Your task to perform on an android device: Open ESPN.com Image 0: 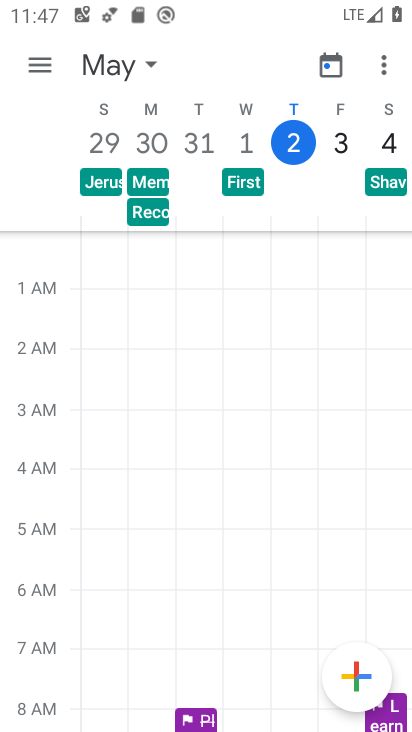
Step 0: press home button
Your task to perform on an android device: Open ESPN.com Image 1: 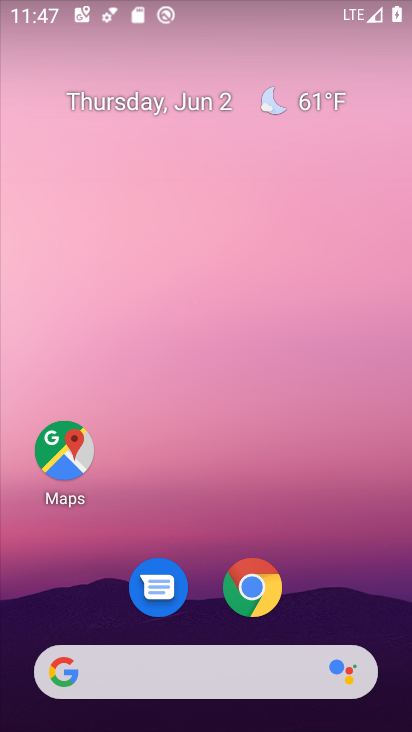
Step 1: click (196, 657)
Your task to perform on an android device: Open ESPN.com Image 2: 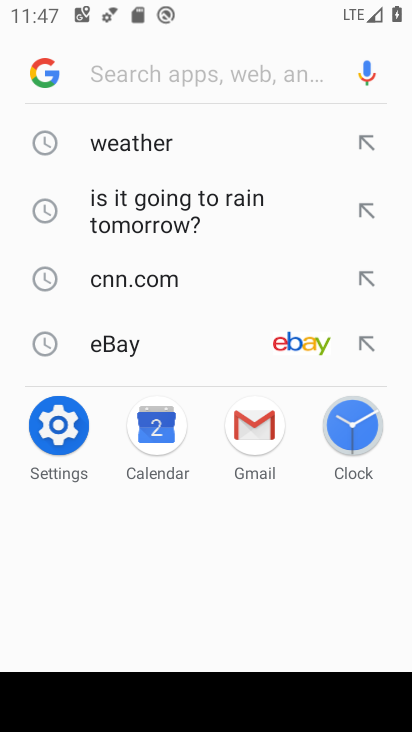
Step 2: type "espn.com"
Your task to perform on an android device: Open ESPN.com Image 3: 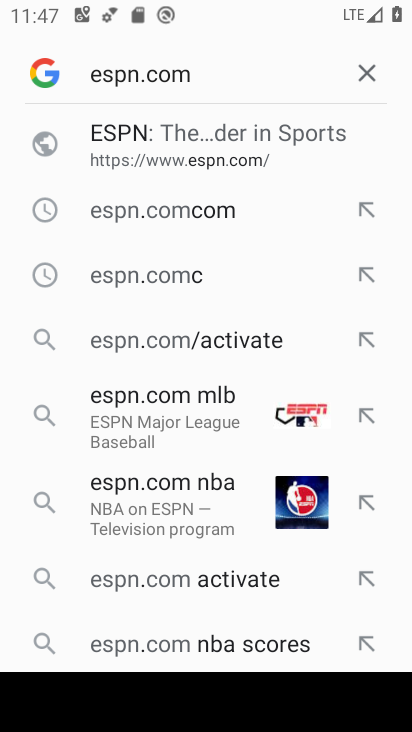
Step 3: click (94, 130)
Your task to perform on an android device: Open ESPN.com Image 4: 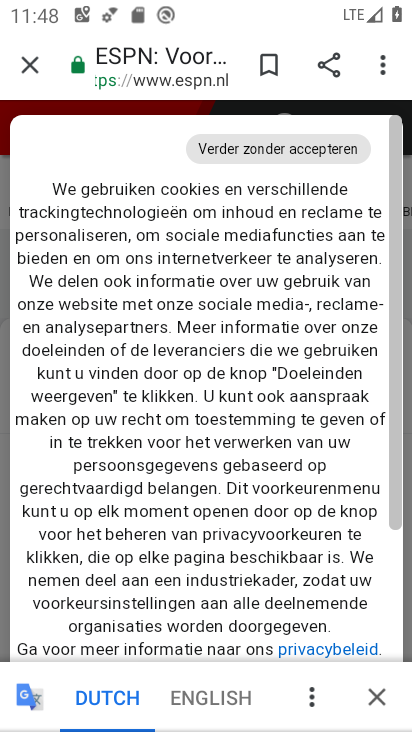
Step 4: task complete